Your task to perform on an android device: visit the assistant section in the google photos Image 0: 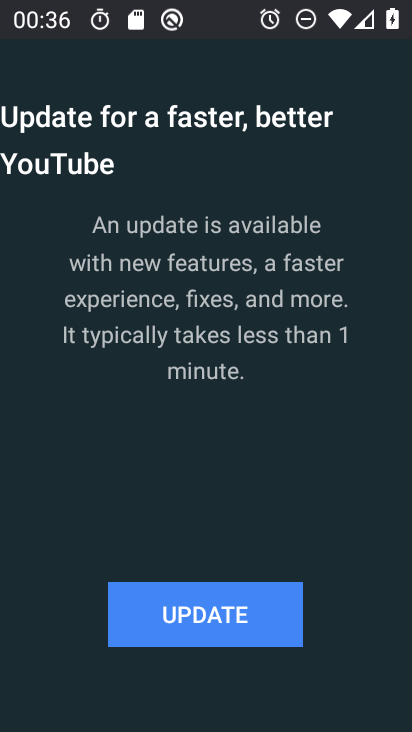
Step 0: press home button
Your task to perform on an android device: visit the assistant section in the google photos Image 1: 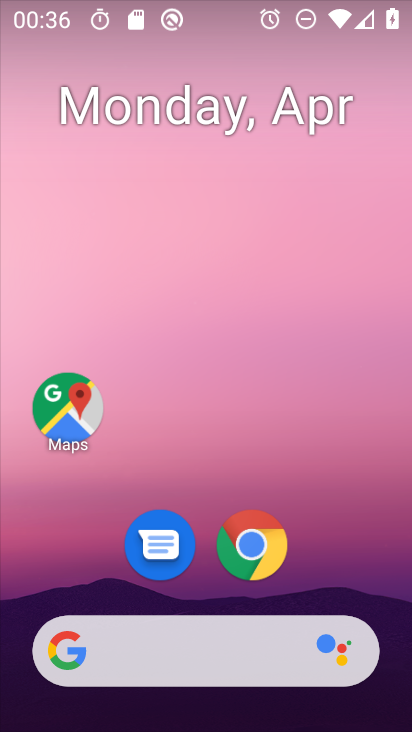
Step 1: drag from (372, 597) to (351, 266)
Your task to perform on an android device: visit the assistant section in the google photos Image 2: 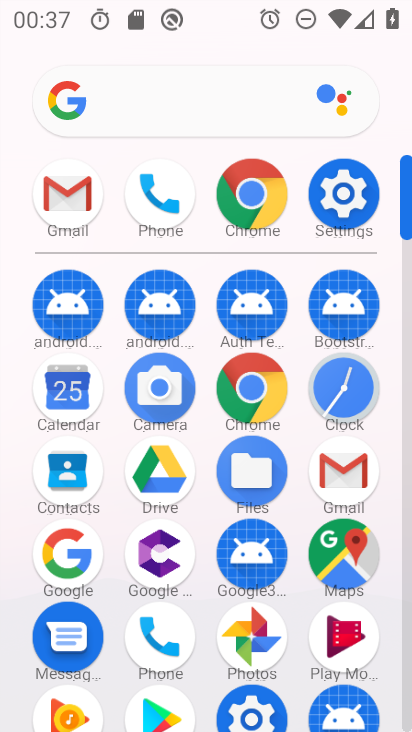
Step 2: click (239, 628)
Your task to perform on an android device: visit the assistant section in the google photos Image 3: 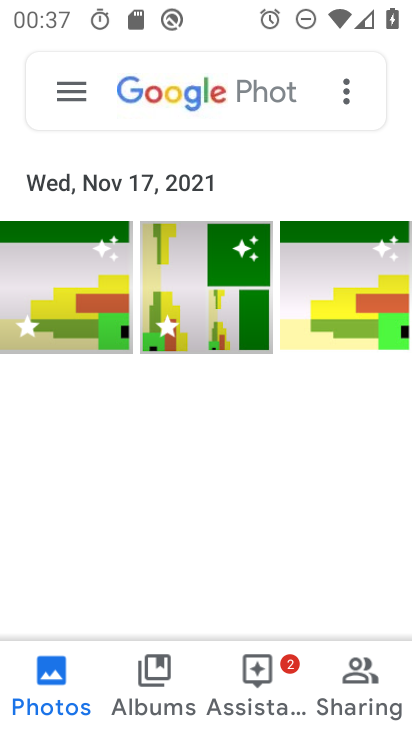
Step 3: click (267, 669)
Your task to perform on an android device: visit the assistant section in the google photos Image 4: 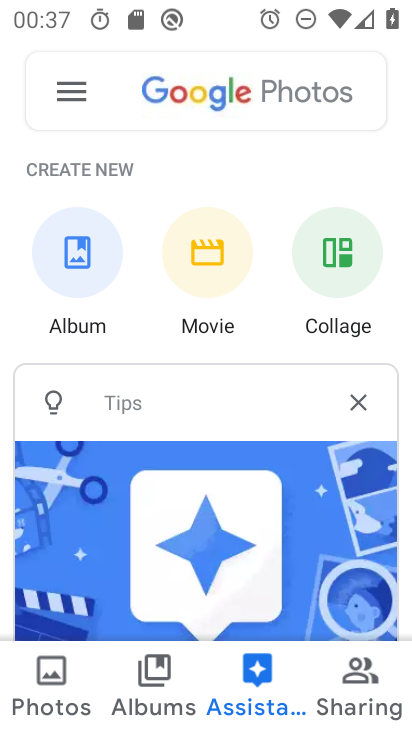
Step 4: task complete